Your task to perform on an android device: How big is a blue whale? Image 0: 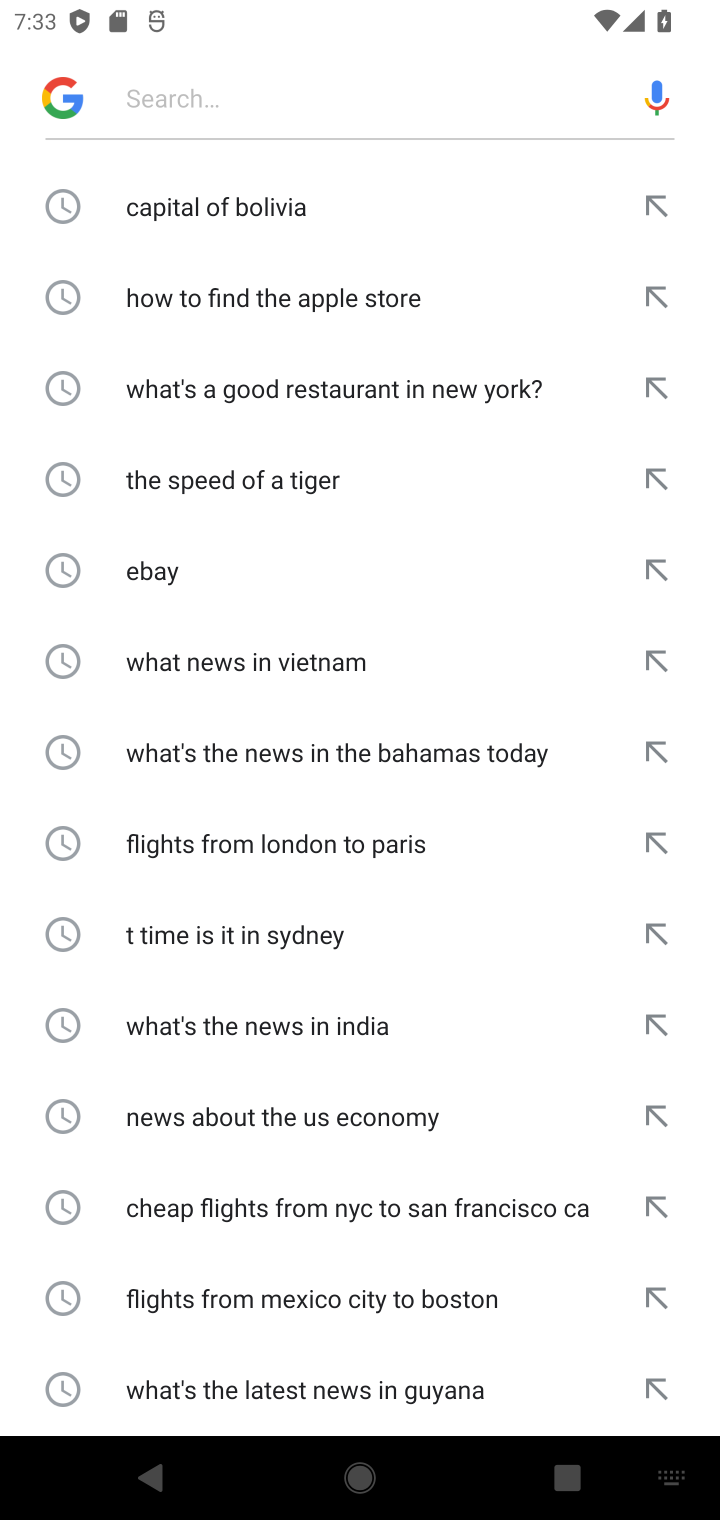
Step 0: click (120, 105)
Your task to perform on an android device: How big is a blue whale? Image 1: 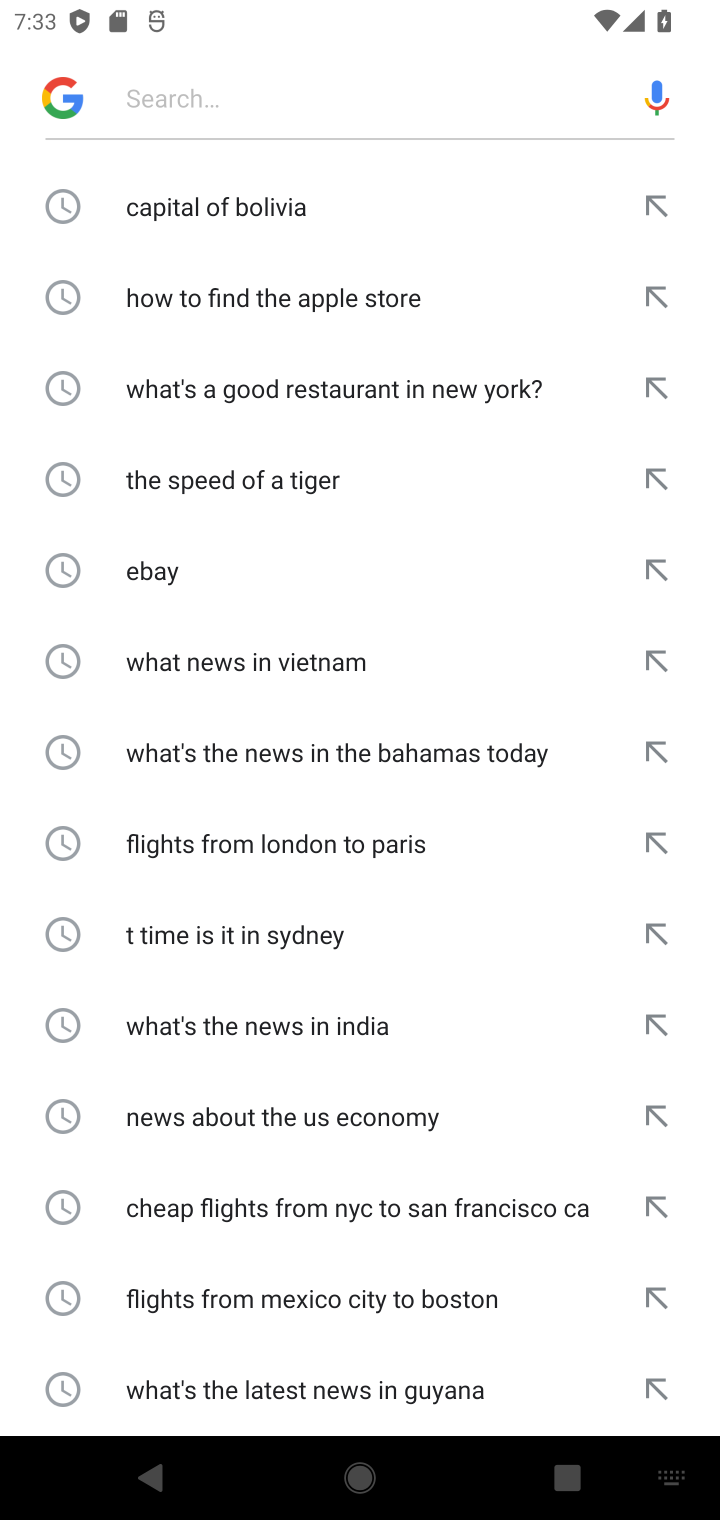
Step 1: type "How big is a blue whale?"
Your task to perform on an android device: How big is a blue whale? Image 2: 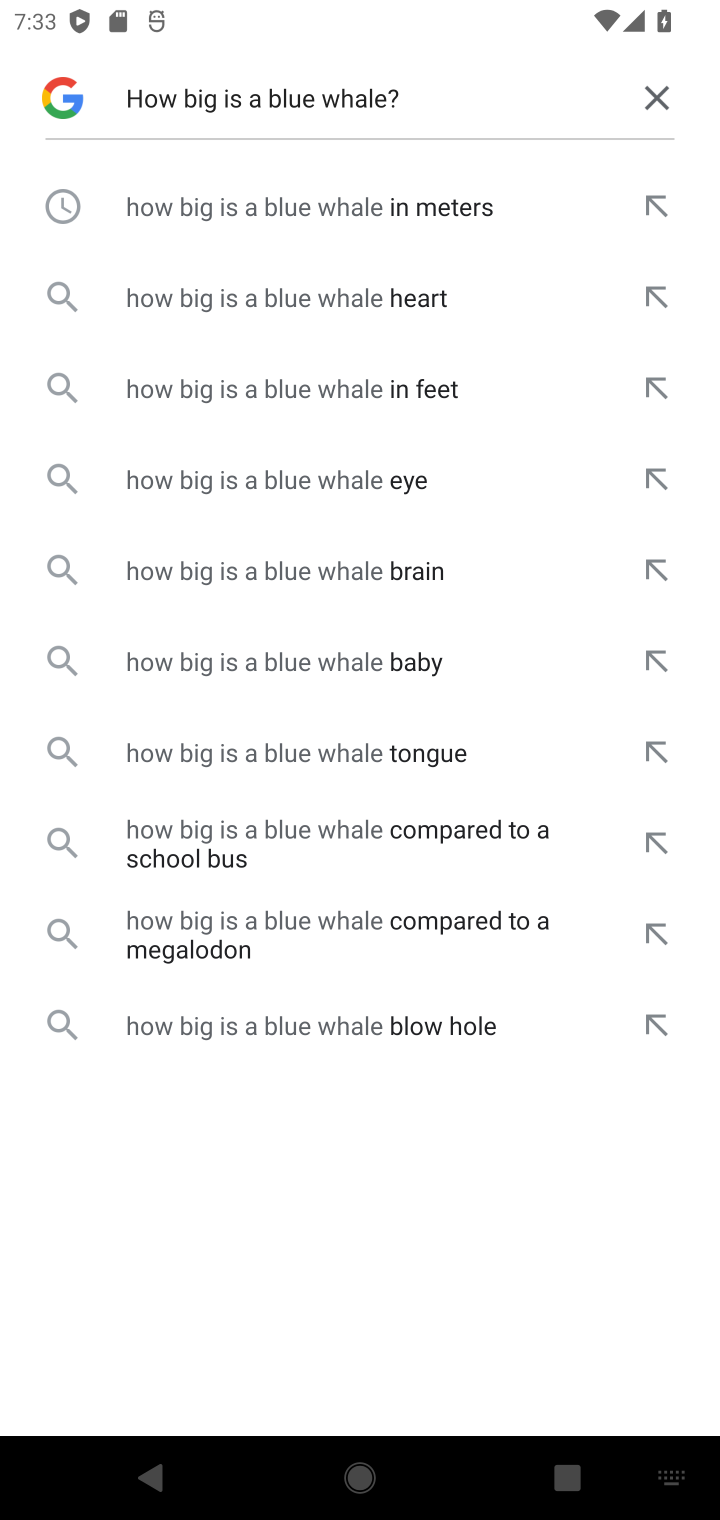
Step 2: click (287, 207)
Your task to perform on an android device: How big is a blue whale? Image 3: 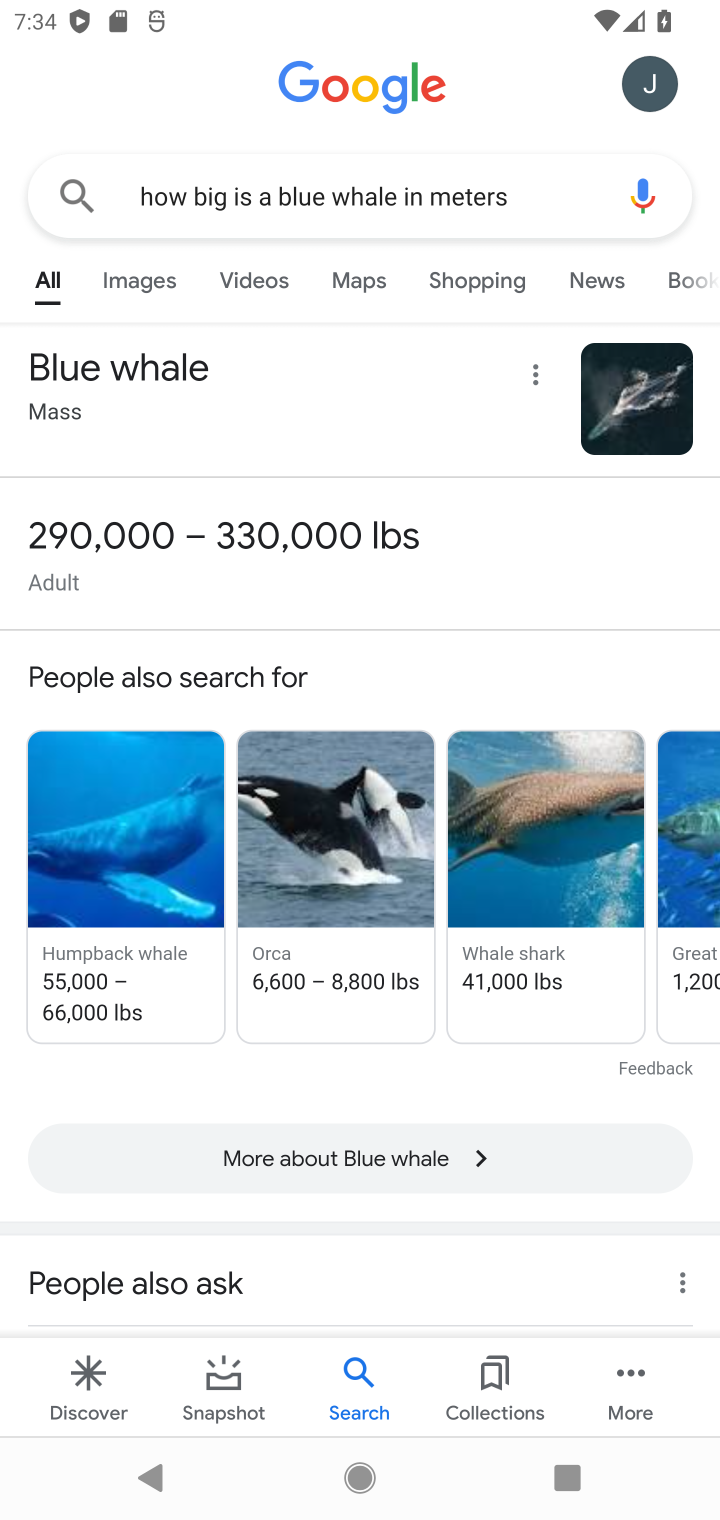
Step 3: task complete